Your task to perform on an android device: What's the weather going to be this weekend? Image 0: 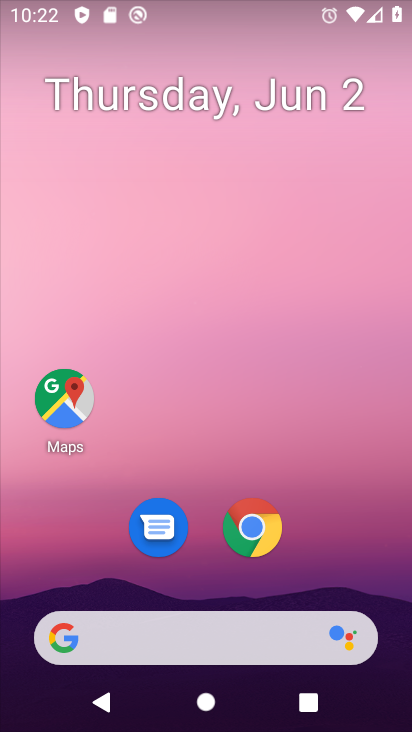
Step 0: drag from (192, 621) to (174, 154)
Your task to perform on an android device: What's the weather going to be this weekend? Image 1: 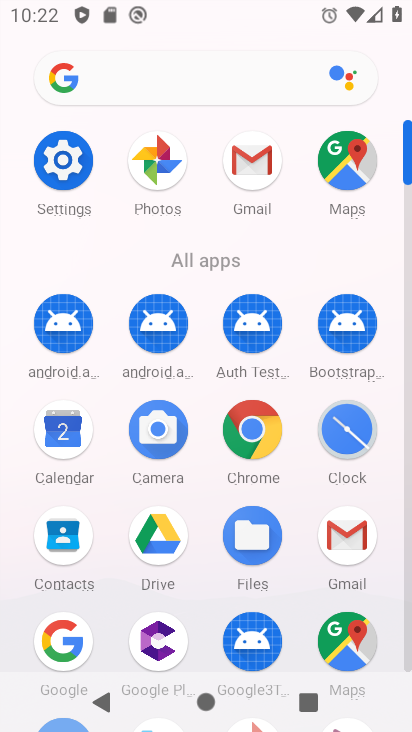
Step 1: click (62, 634)
Your task to perform on an android device: What's the weather going to be this weekend? Image 2: 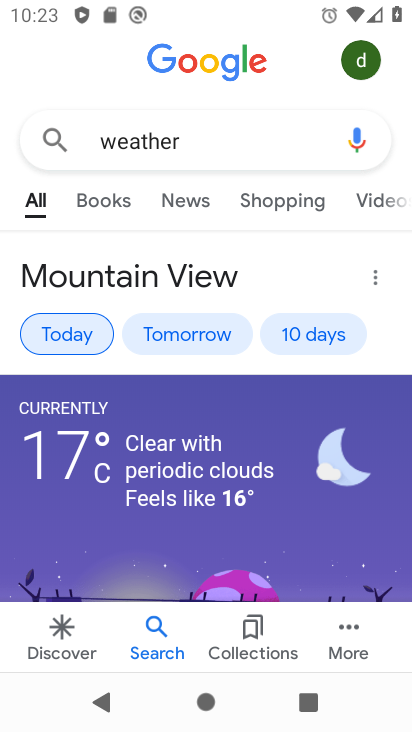
Step 2: click (297, 350)
Your task to perform on an android device: What's the weather going to be this weekend? Image 3: 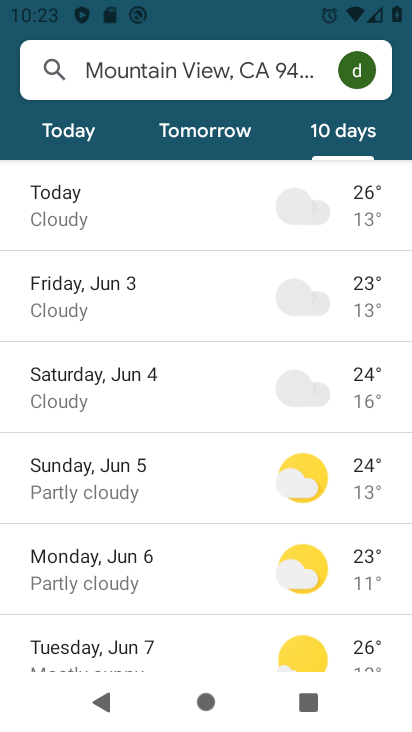
Step 3: task complete